Your task to perform on an android device: Go to calendar. Show me events next week Image 0: 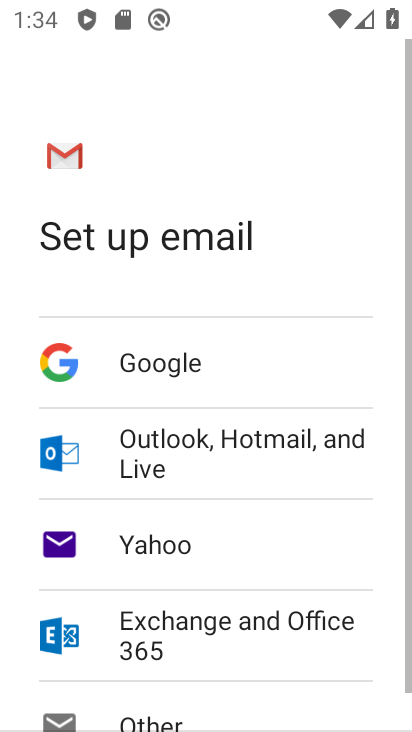
Step 0: press home button
Your task to perform on an android device: Go to calendar. Show me events next week Image 1: 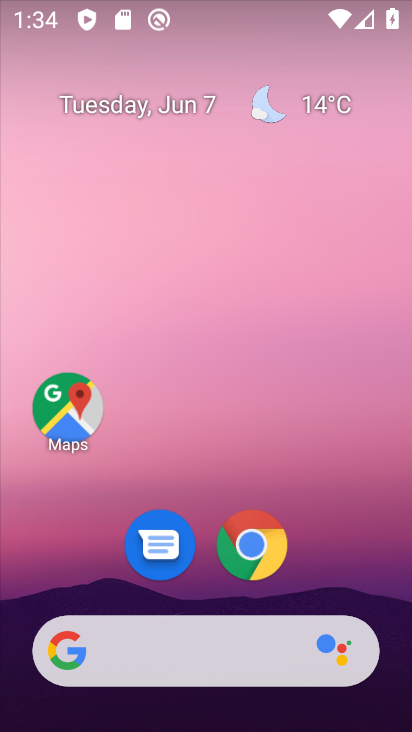
Step 1: click (164, 106)
Your task to perform on an android device: Go to calendar. Show me events next week Image 2: 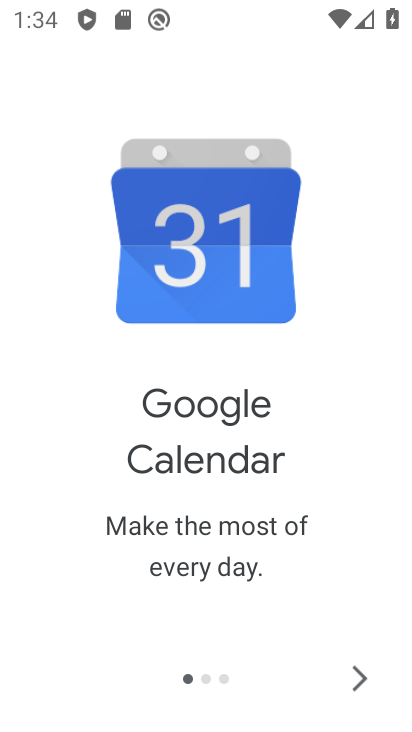
Step 2: click (358, 676)
Your task to perform on an android device: Go to calendar. Show me events next week Image 3: 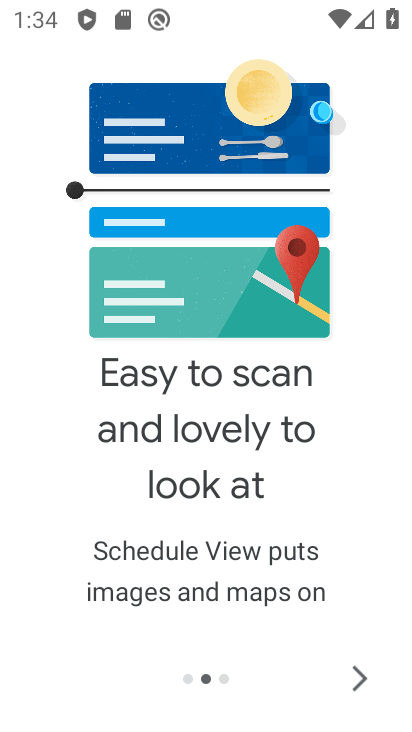
Step 3: click (358, 676)
Your task to perform on an android device: Go to calendar. Show me events next week Image 4: 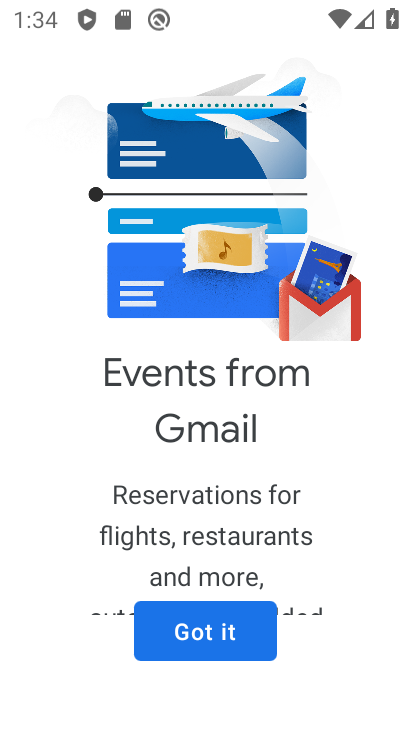
Step 4: click (224, 637)
Your task to perform on an android device: Go to calendar. Show me events next week Image 5: 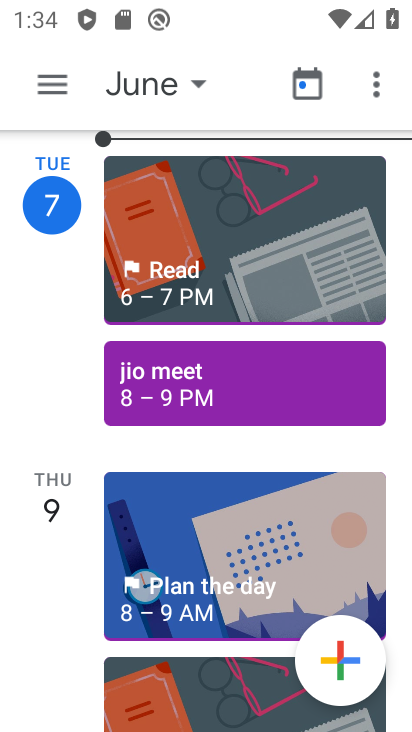
Step 5: click (53, 87)
Your task to perform on an android device: Go to calendar. Show me events next week Image 6: 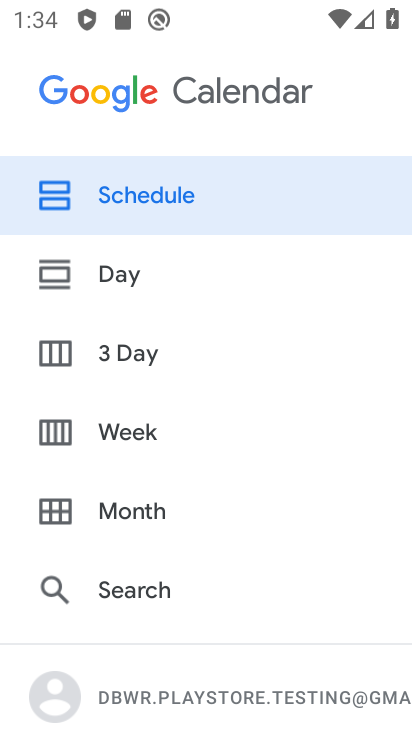
Step 6: click (163, 437)
Your task to perform on an android device: Go to calendar. Show me events next week Image 7: 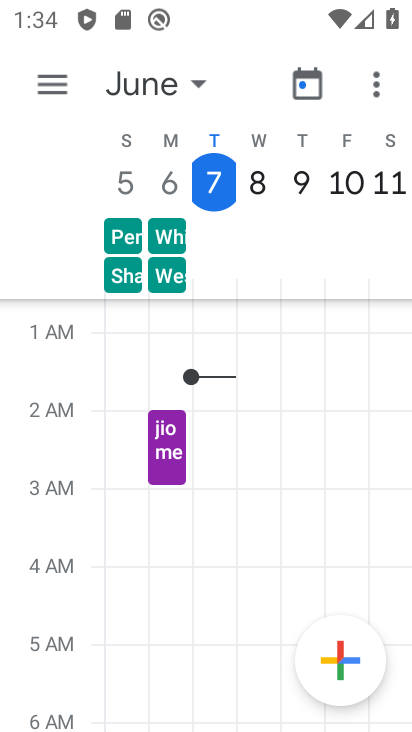
Step 7: click (195, 81)
Your task to perform on an android device: Go to calendar. Show me events next week Image 8: 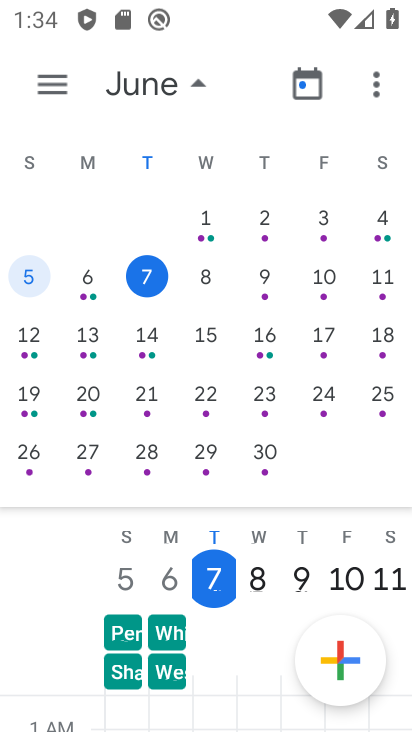
Step 8: click (35, 344)
Your task to perform on an android device: Go to calendar. Show me events next week Image 9: 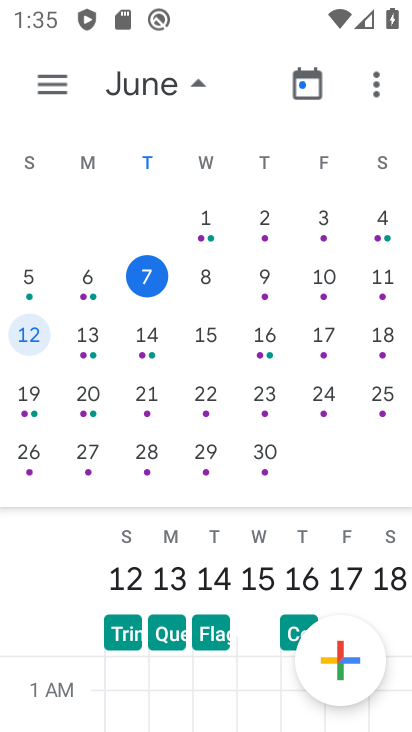
Step 9: click (28, 343)
Your task to perform on an android device: Go to calendar. Show me events next week Image 10: 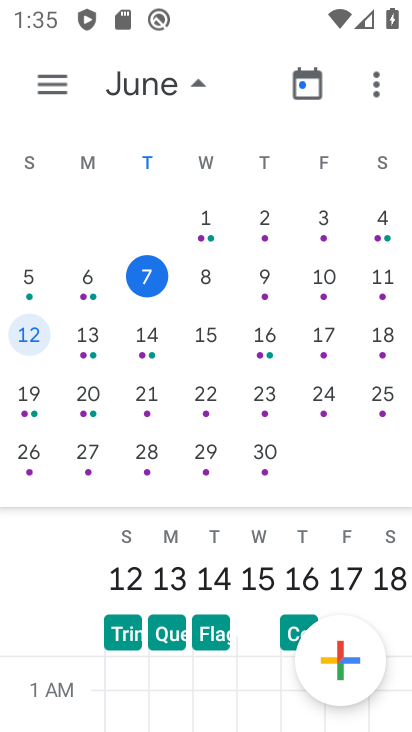
Step 10: task complete